Your task to perform on an android device: Show the shopping cart on costco. Search for "bose quietcomfort 35" on costco, select the first entry, and add it to the cart. Image 0: 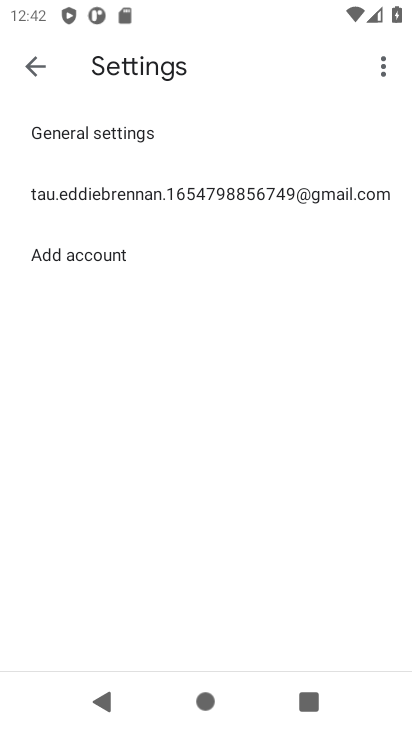
Step 0: press home button
Your task to perform on an android device: Show the shopping cart on costco. Search for "bose quietcomfort 35" on costco, select the first entry, and add it to the cart. Image 1: 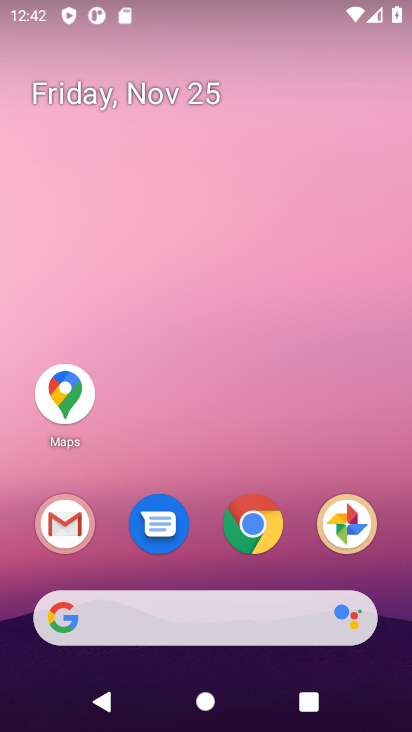
Step 1: click (259, 529)
Your task to perform on an android device: Show the shopping cart on costco. Search for "bose quietcomfort 35" on costco, select the first entry, and add it to the cart. Image 2: 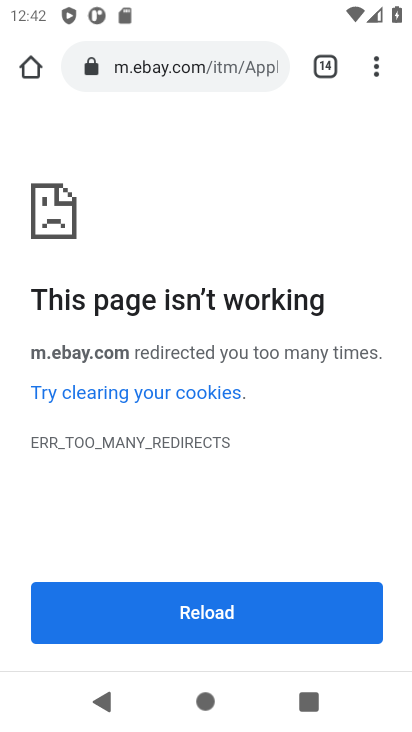
Step 2: click (167, 69)
Your task to perform on an android device: Show the shopping cart on costco. Search for "bose quietcomfort 35" on costco, select the first entry, and add it to the cart. Image 3: 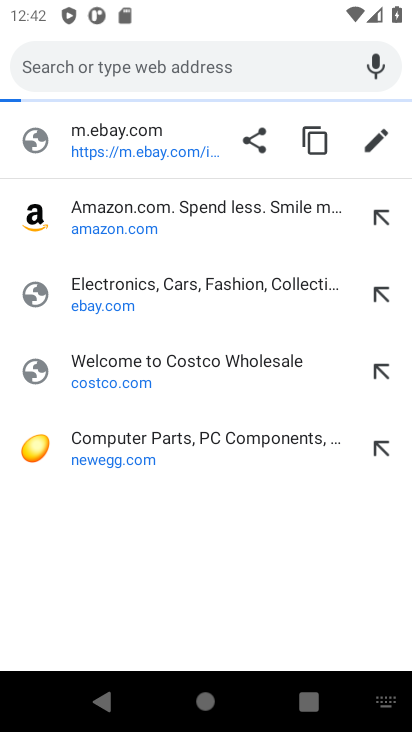
Step 3: click (97, 371)
Your task to perform on an android device: Show the shopping cart on costco. Search for "bose quietcomfort 35" on costco, select the first entry, and add it to the cart. Image 4: 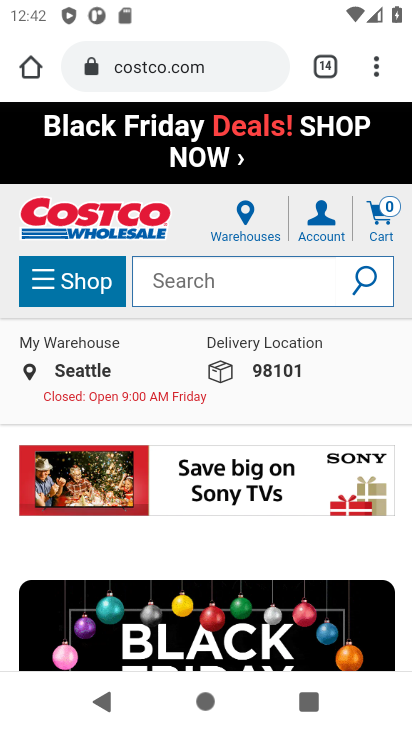
Step 4: click (376, 222)
Your task to perform on an android device: Show the shopping cart on costco. Search for "bose quietcomfort 35" on costco, select the first entry, and add it to the cart. Image 5: 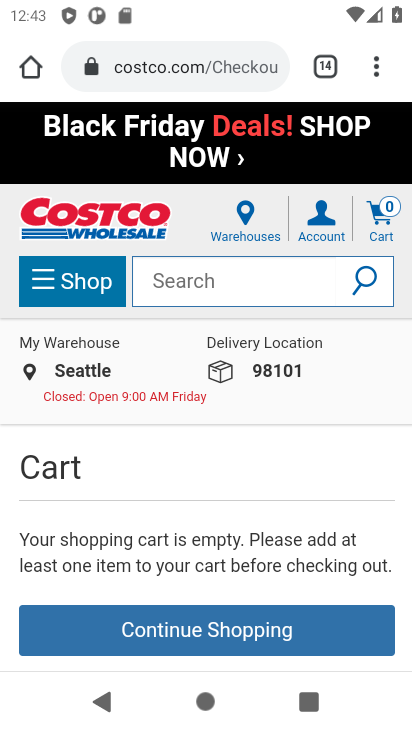
Step 5: drag from (262, 479) to (276, 364)
Your task to perform on an android device: Show the shopping cart on costco. Search for "bose quietcomfort 35" on costco, select the first entry, and add it to the cart. Image 6: 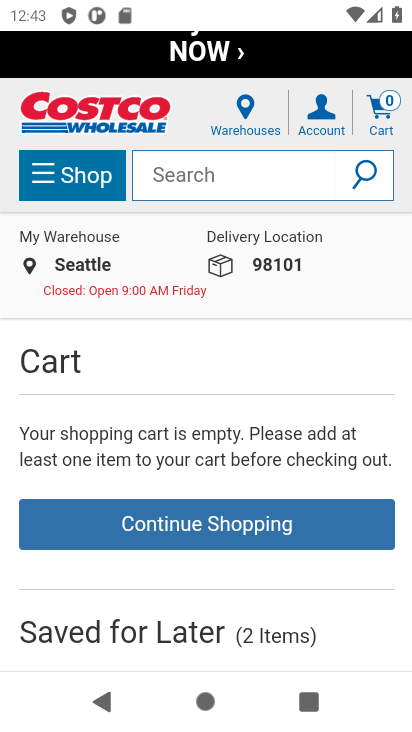
Step 6: click (172, 165)
Your task to perform on an android device: Show the shopping cart on costco. Search for "bose quietcomfort 35" on costco, select the first entry, and add it to the cart. Image 7: 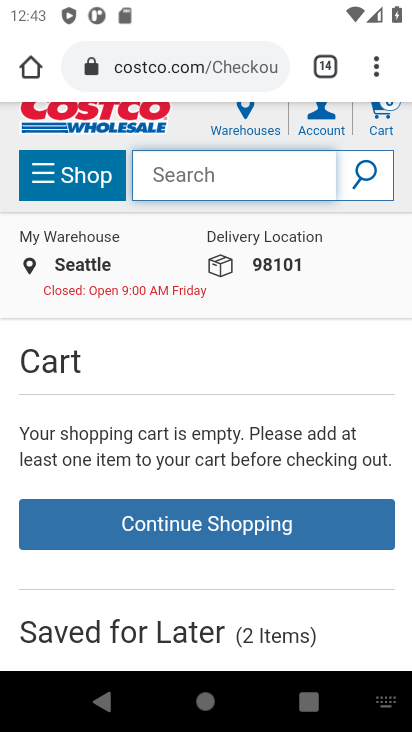
Step 7: type "bose quietcomfort 35"
Your task to perform on an android device: Show the shopping cart on costco. Search for "bose quietcomfort 35" on costco, select the first entry, and add it to the cart. Image 8: 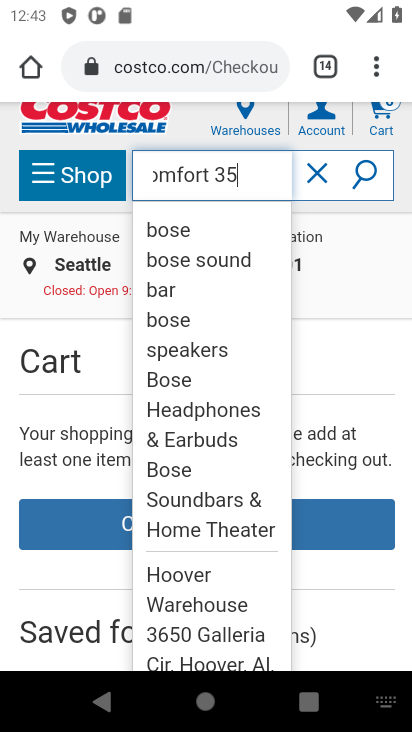
Step 8: click (369, 171)
Your task to perform on an android device: Show the shopping cart on costco. Search for "bose quietcomfort 35" on costco, select the first entry, and add it to the cart. Image 9: 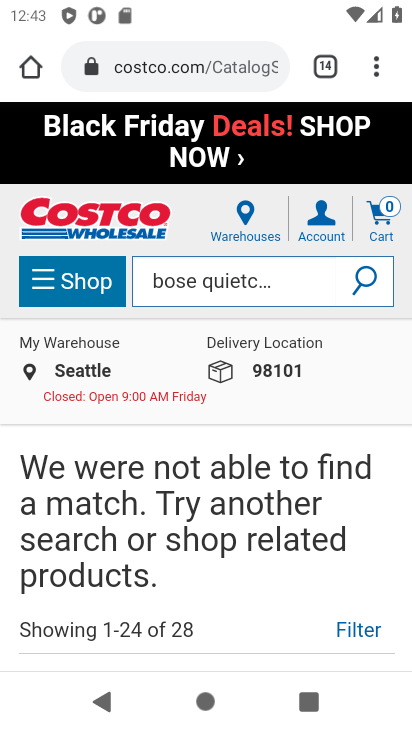
Step 9: task complete